Your task to perform on an android device: uninstall "Cash App" Image 0: 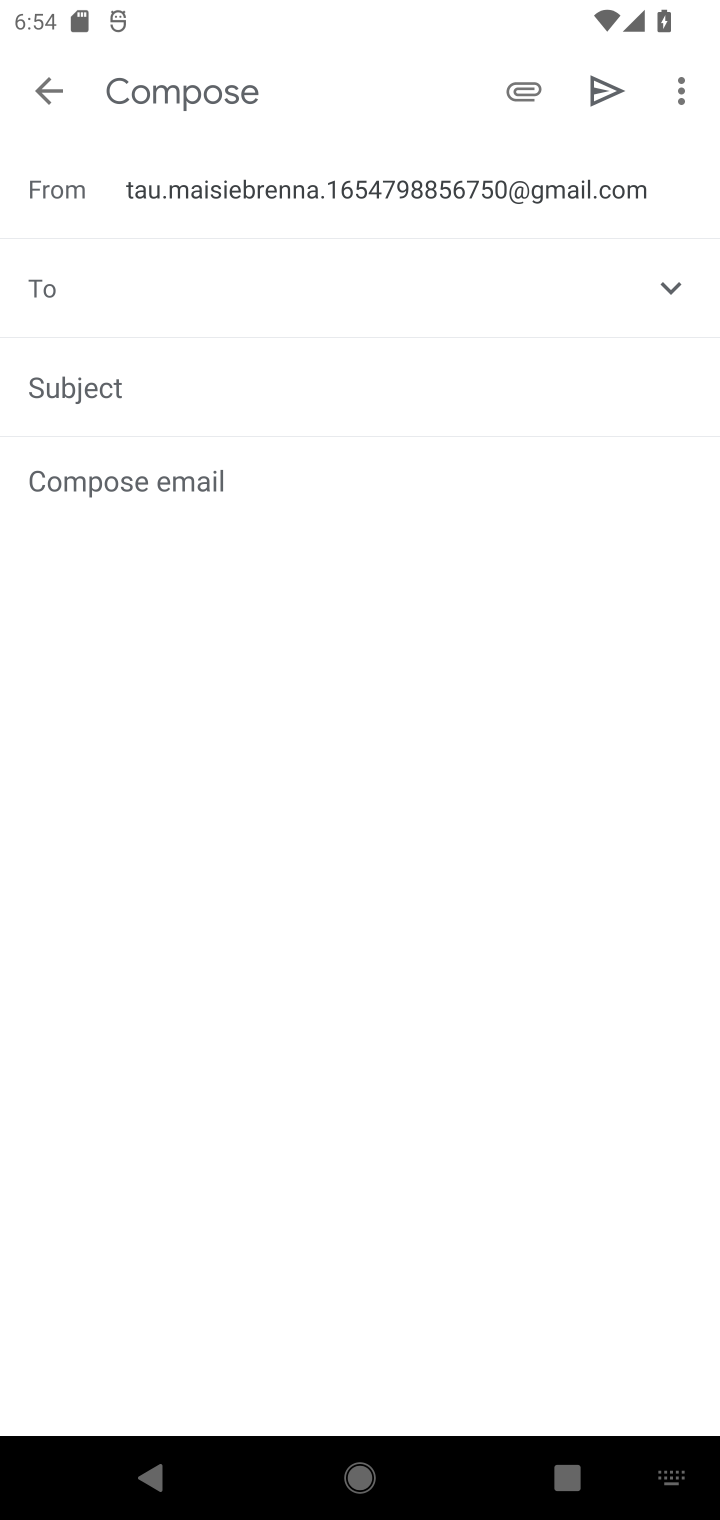
Step 0: press home button
Your task to perform on an android device: uninstall "Cash App" Image 1: 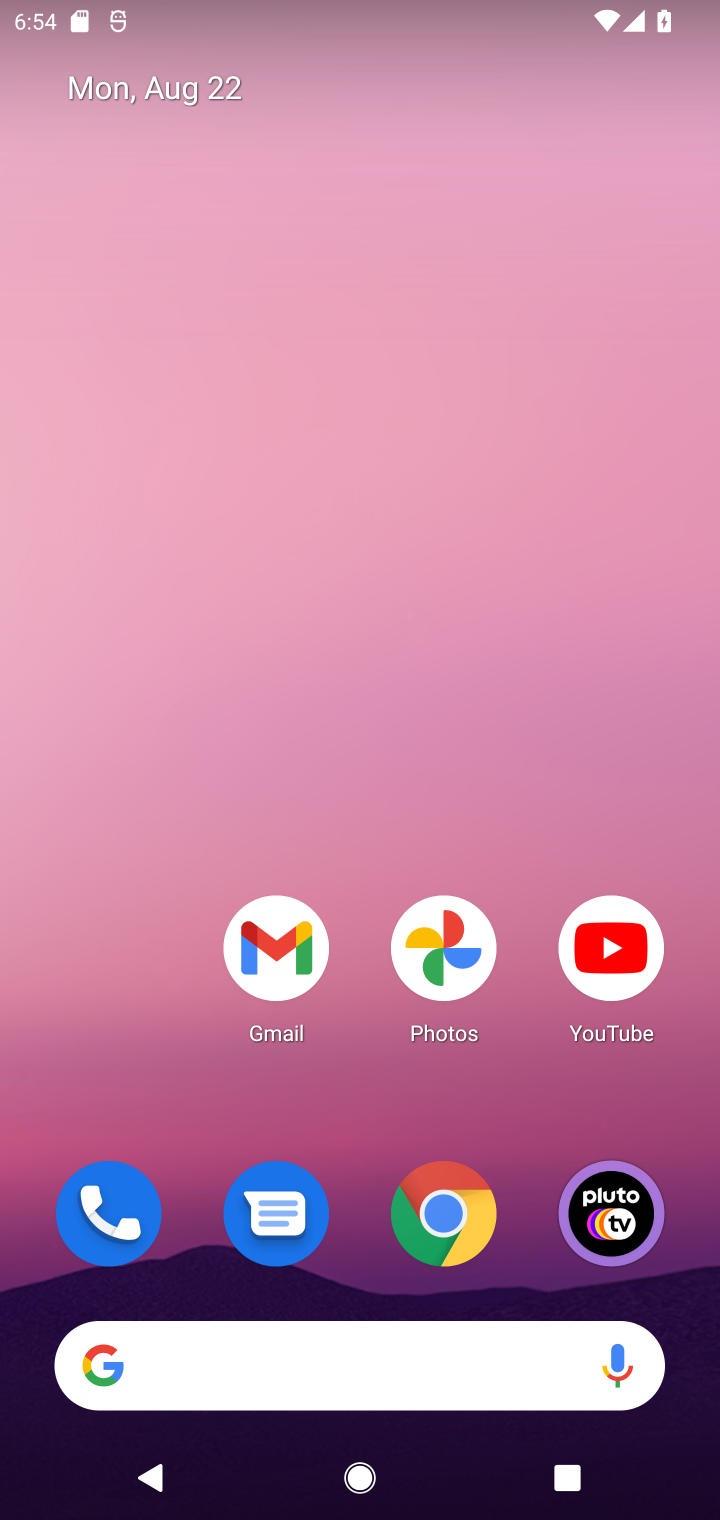
Step 1: drag from (364, 1118) to (179, 163)
Your task to perform on an android device: uninstall "Cash App" Image 2: 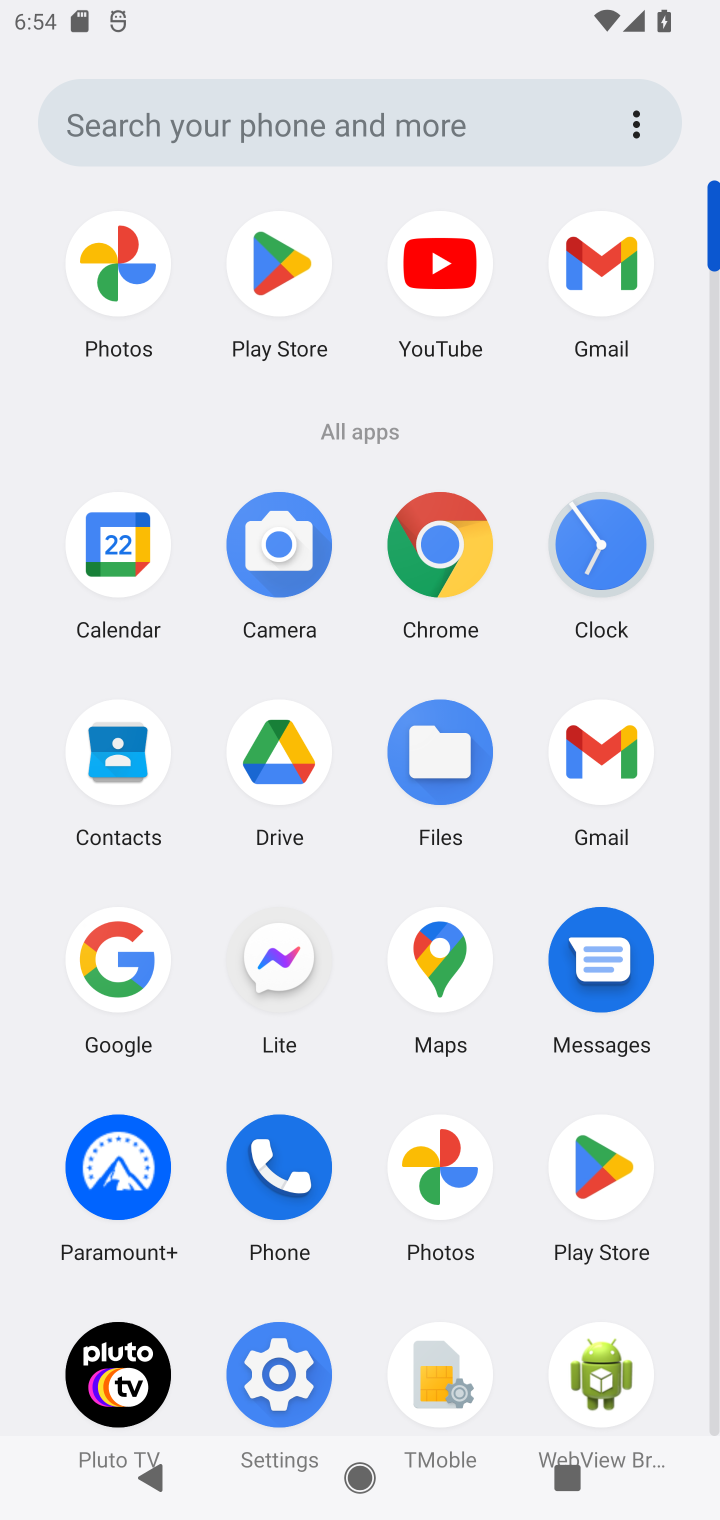
Step 2: click (611, 1175)
Your task to perform on an android device: uninstall "Cash App" Image 3: 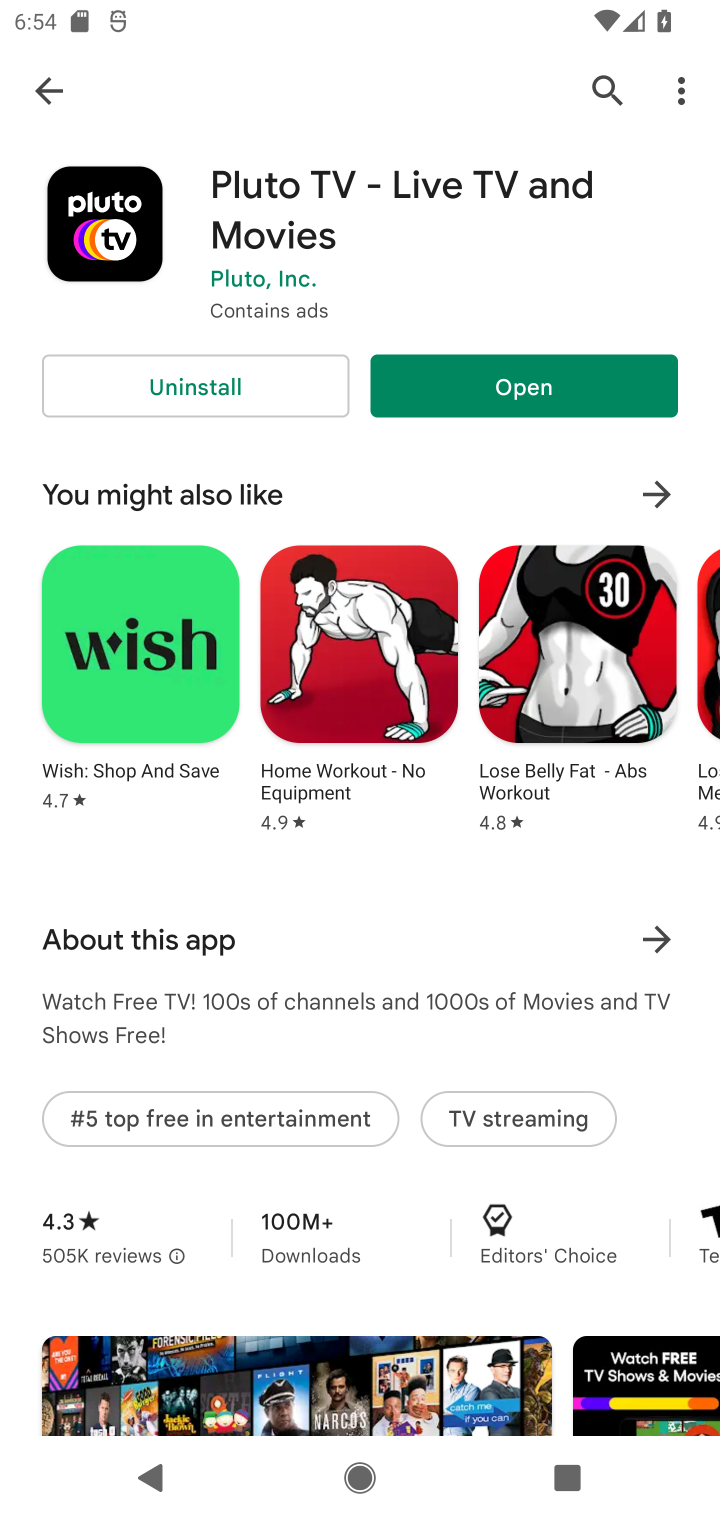
Step 3: click (590, 81)
Your task to perform on an android device: uninstall "Cash App" Image 4: 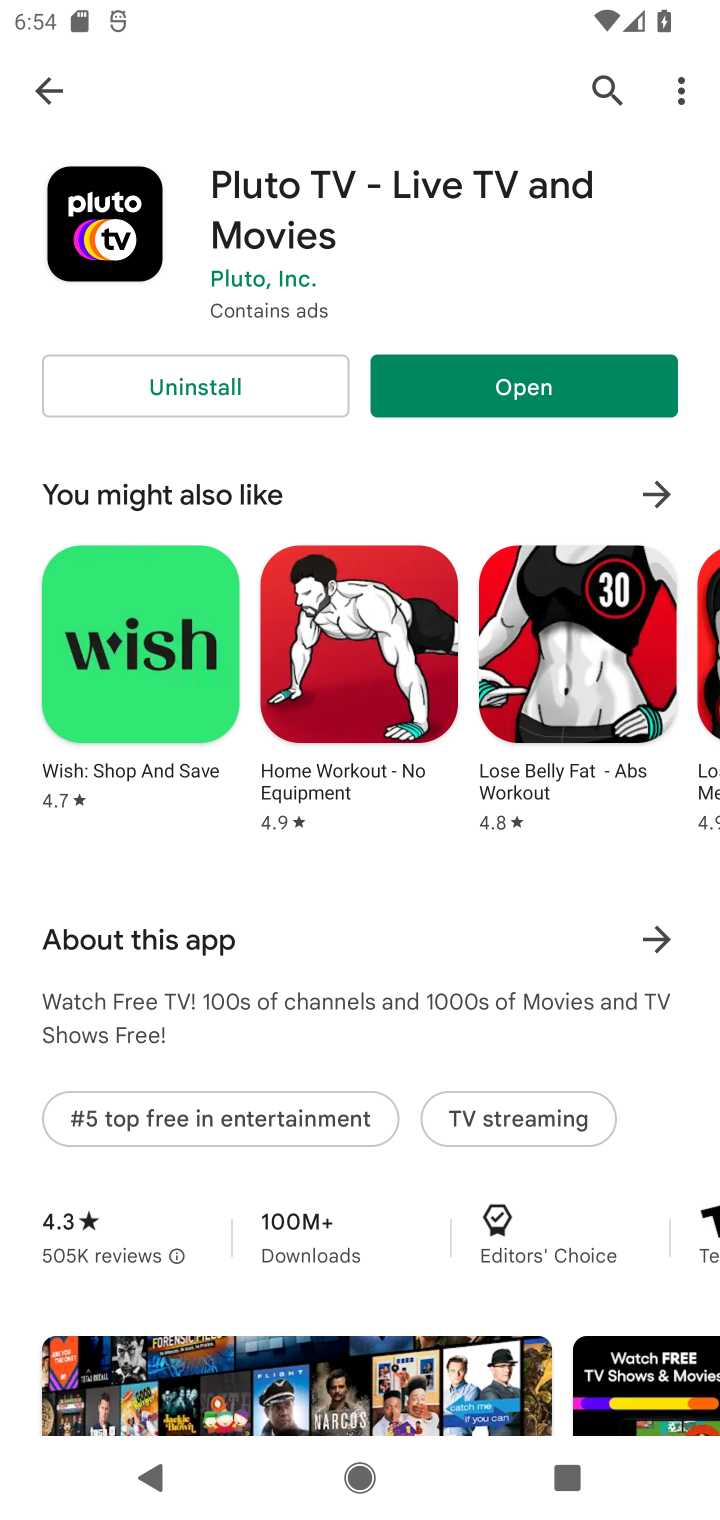
Step 4: press back button
Your task to perform on an android device: uninstall "Cash App" Image 5: 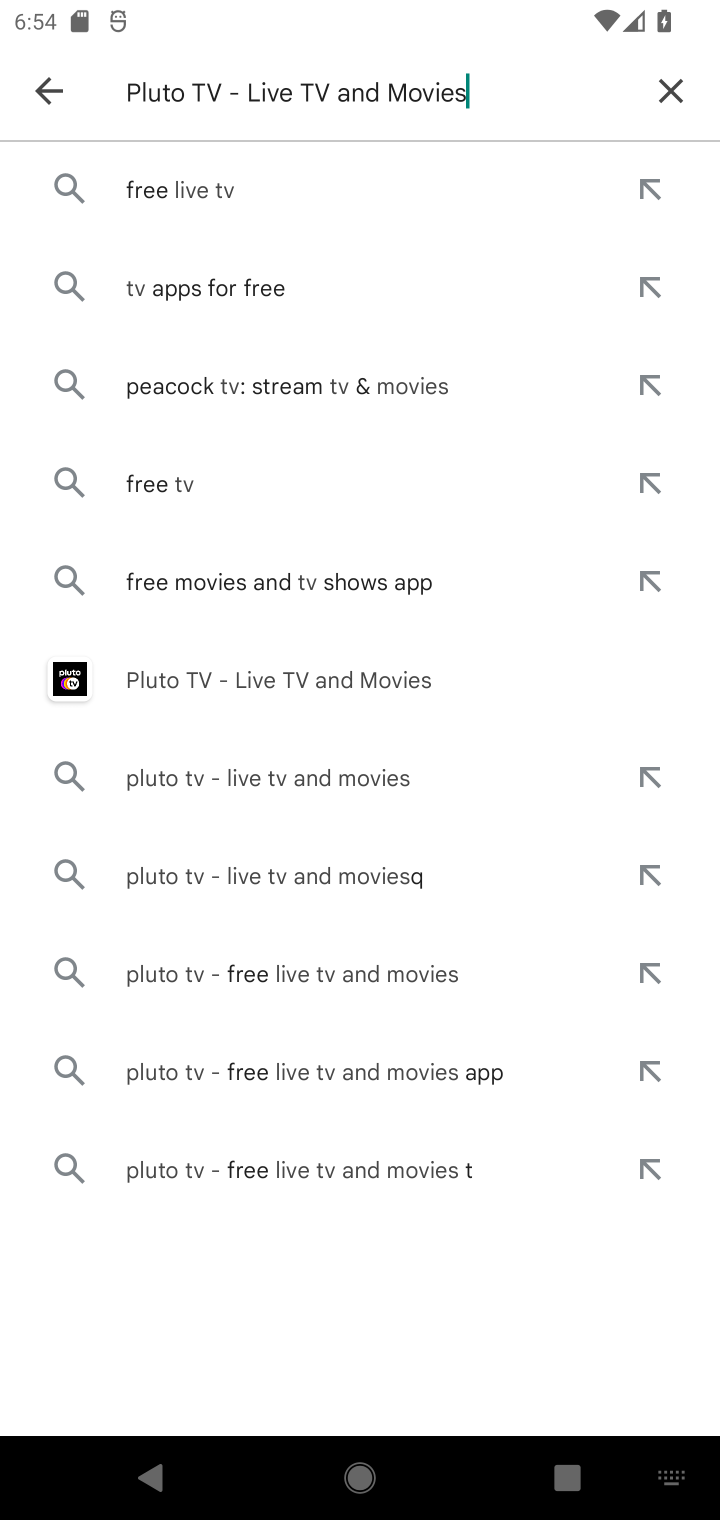
Step 5: click (683, 86)
Your task to perform on an android device: uninstall "Cash App" Image 6: 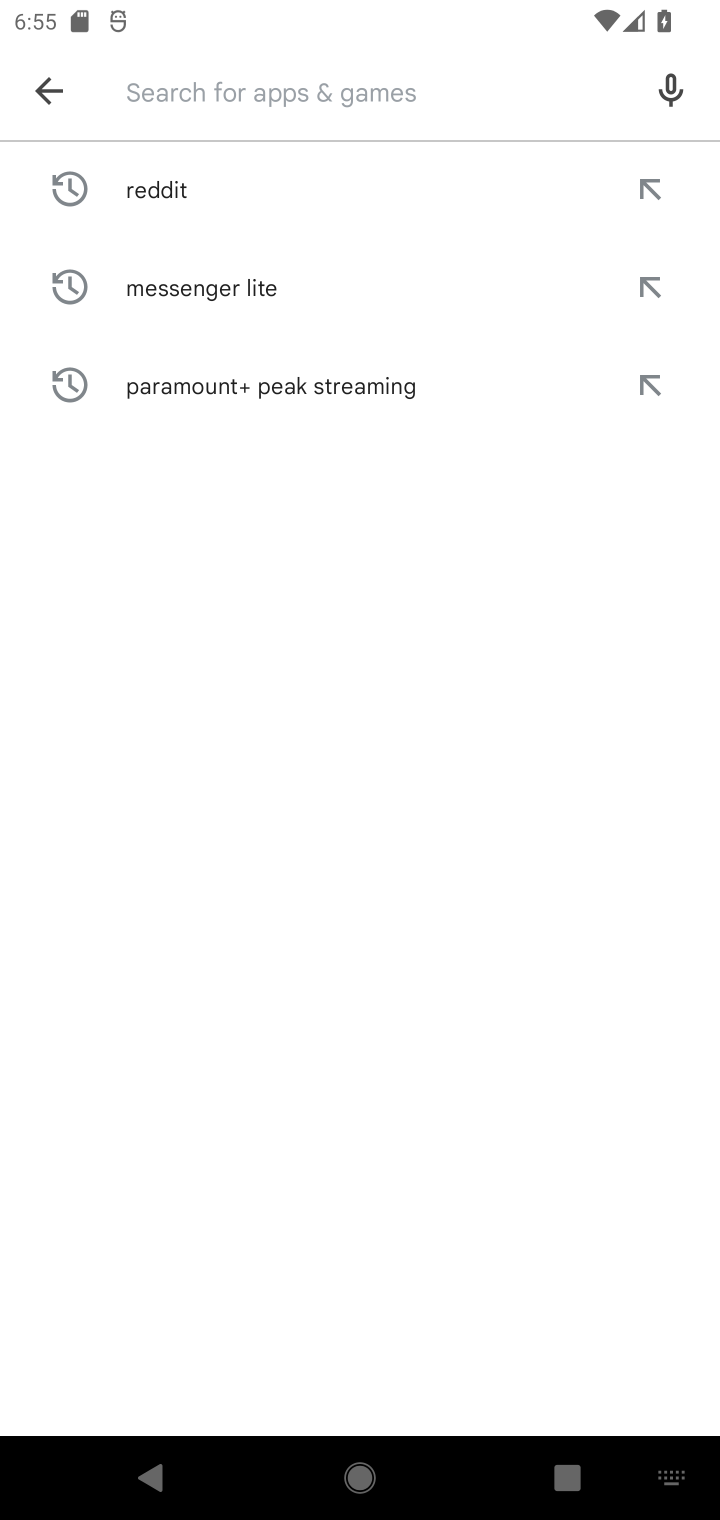
Step 6: type "Cash App"
Your task to perform on an android device: uninstall "Cash App" Image 7: 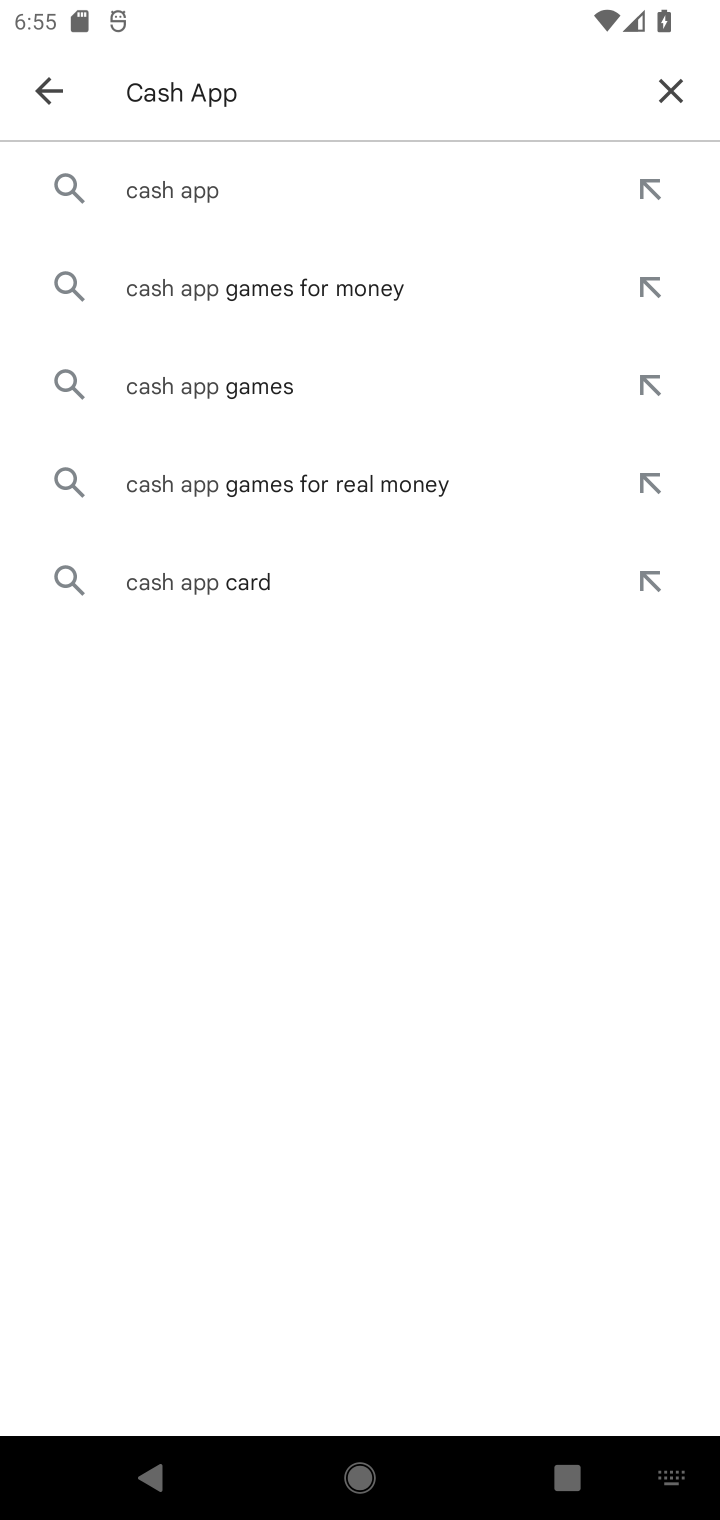
Step 7: click (234, 193)
Your task to perform on an android device: uninstall "Cash App" Image 8: 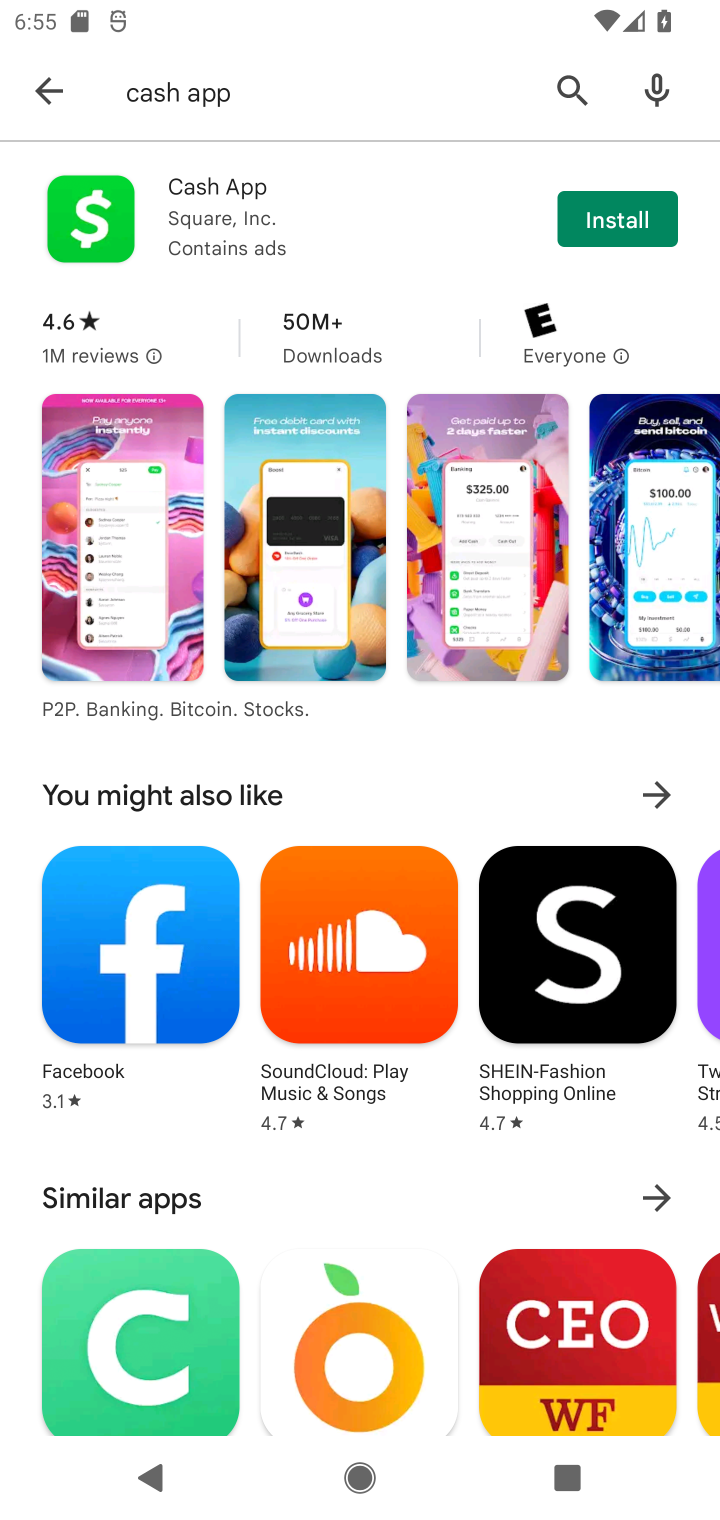
Step 8: task complete